Your task to perform on an android device: Go to Yahoo.com Image 0: 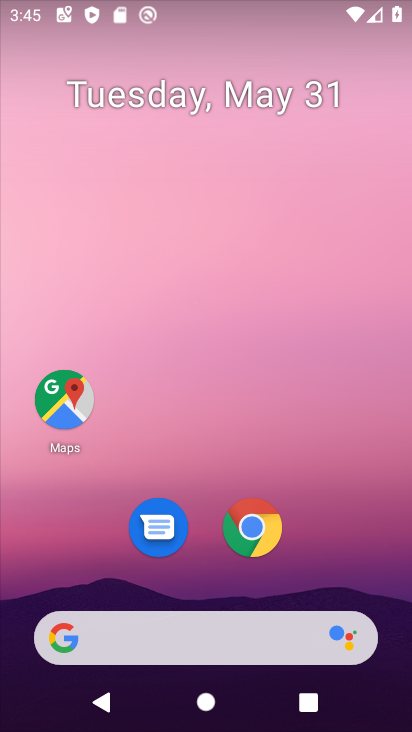
Step 0: click (255, 517)
Your task to perform on an android device: Go to Yahoo.com Image 1: 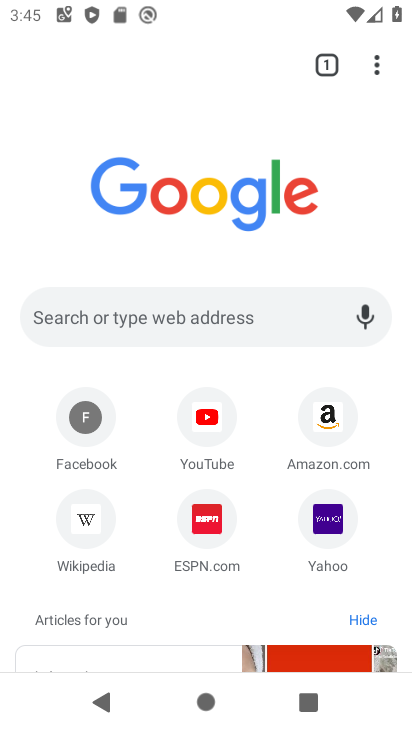
Step 1: click (320, 536)
Your task to perform on an android device: Go to Yahoo.com Image 2: 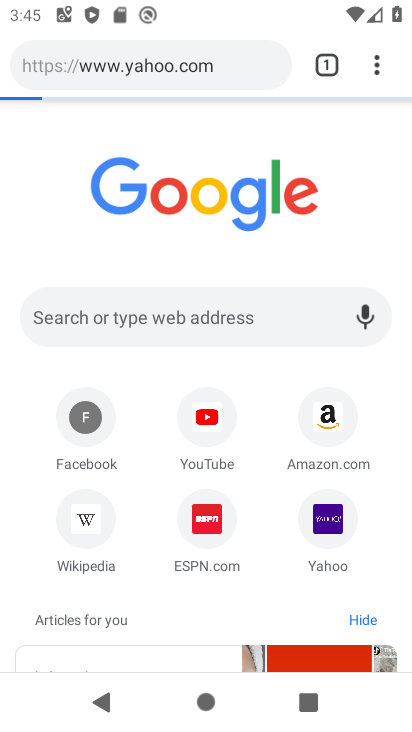
Step 2: task complete